Your task to perform on an android device: open app "Upside-Cash back on gas & food" (install if not already installed) and go to login screen Image 0: 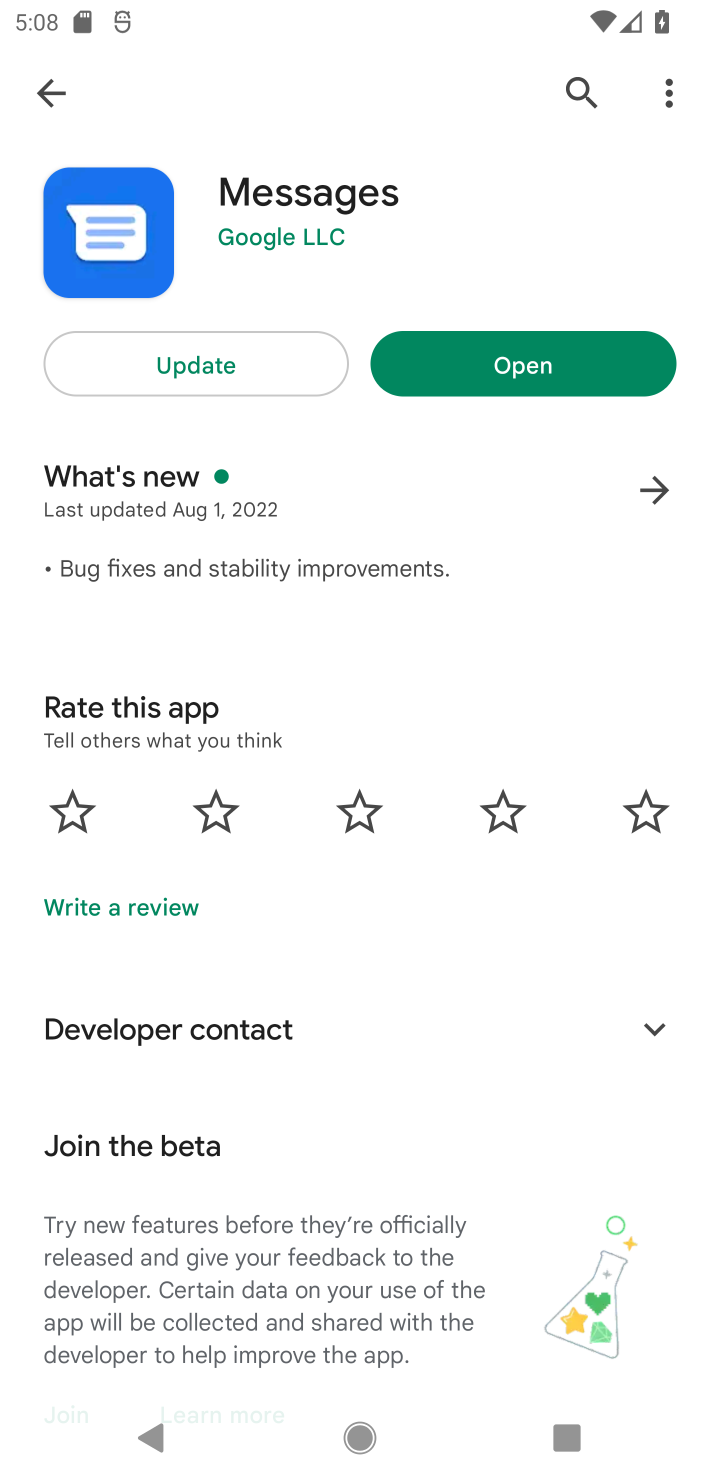
Step 0: click (523, 375)
Your task to perform on an android device: open app "Upside-Cash back on gas & food" (install if not already installed) and go to login screen Image 1: 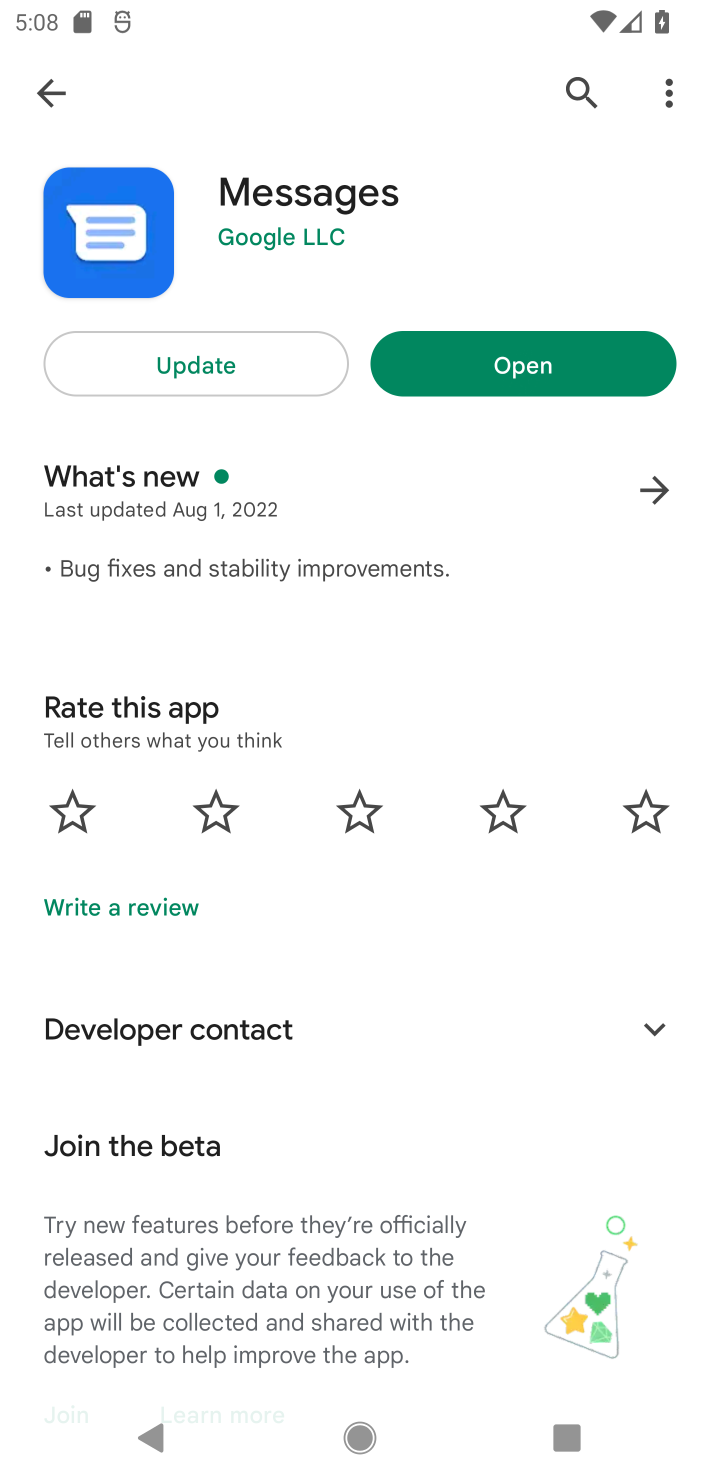
Step 1: task complete